Your task to perform on an android device: turn off location Image 0: 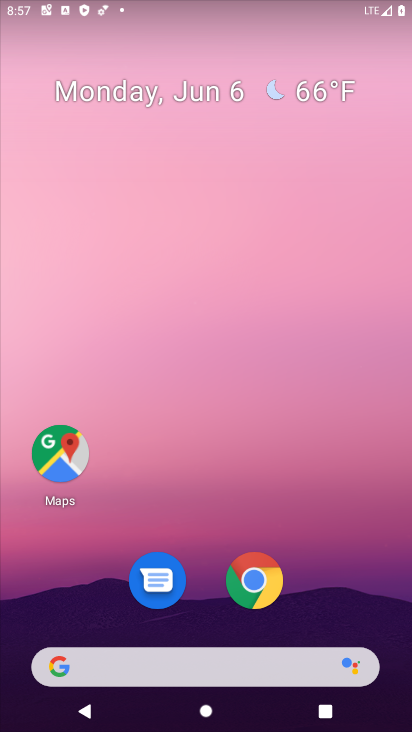
Step 0: drag from (368, 552) to (315, 4)
Your task to perform on an android device: turn off location Image 1: 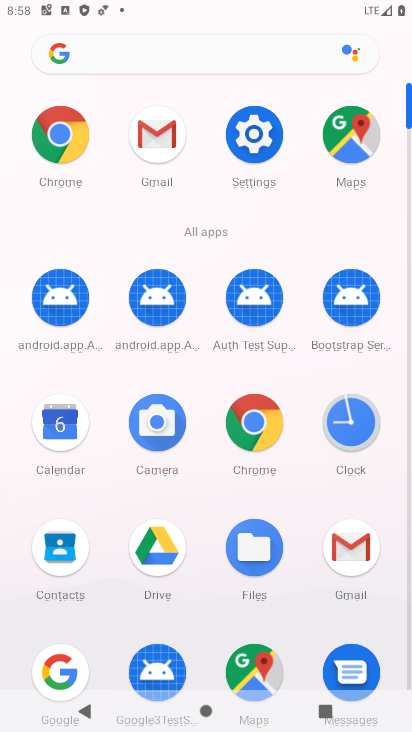
Step 1: click (245, 119)
Your task to perform on an android device: turn off location Image 2: 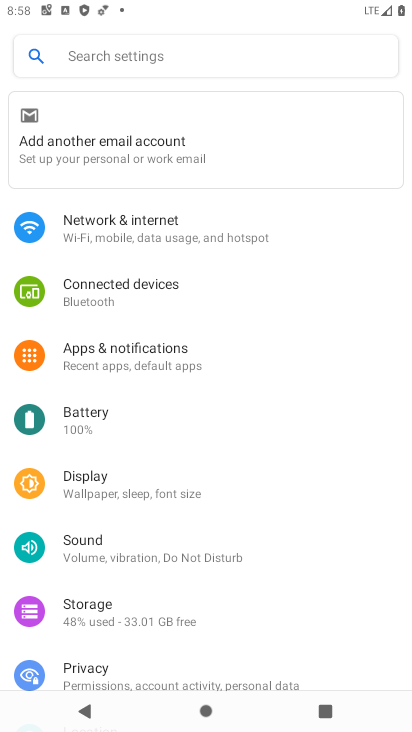
Step 2: drag from (113, 575) to (151, 166)
Your task to perform on an android device: turn off location Image 3: 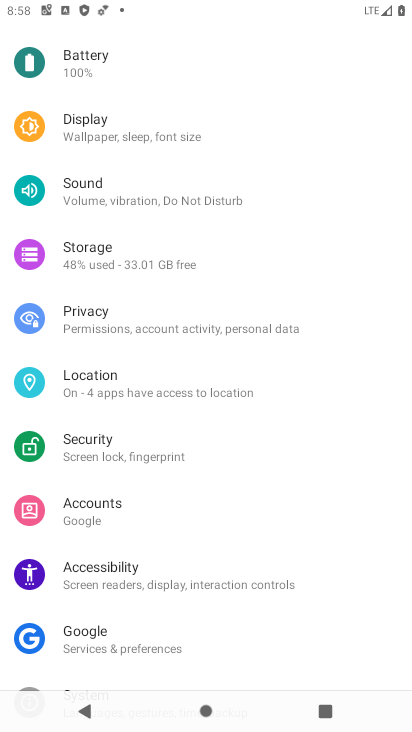
Step 3: click (62, 391)
Your task to perform on an android device: turn off location Image 4: 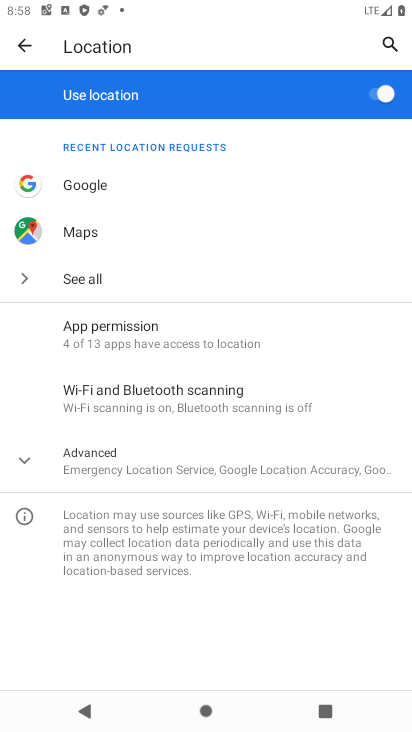
Step 4: click (380, 106)
Your task to perform on an android device: turn off location Image 5: 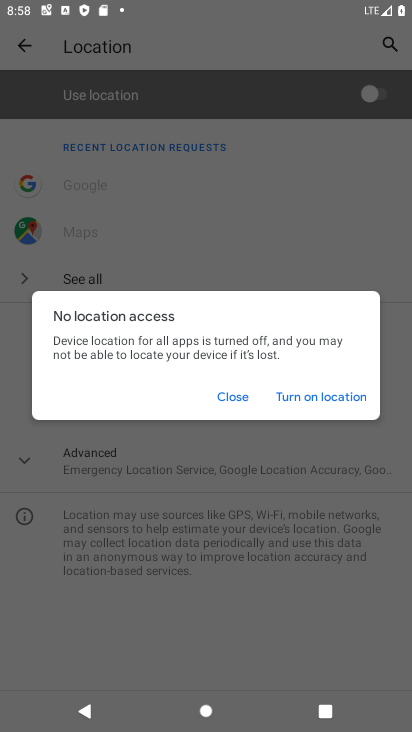
Step 5: task complete